Your task to perform on an android device: turn on location history Image 0: 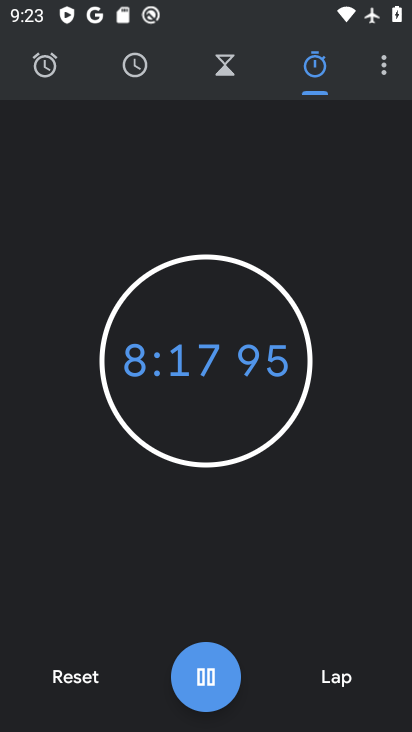
Step 0: press home button
Your task to perform on an android device: turn on location history Image 1: 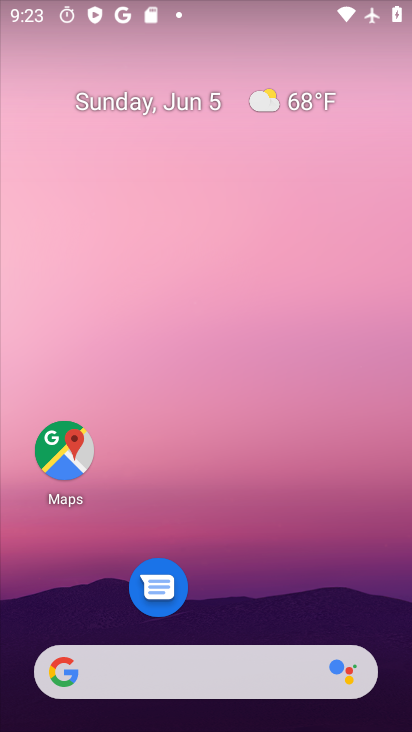
Step 1: drag from (244, 575) to (4, 100)
Your task to perform on an android device: turn on location history Image 2: 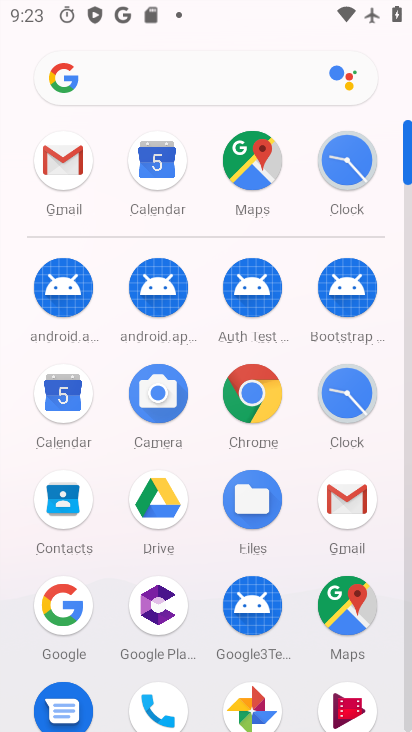
Step 2: drag from (207, 642) to (161, 456)
Your task to perform on an android device: turn on location history Image 3: 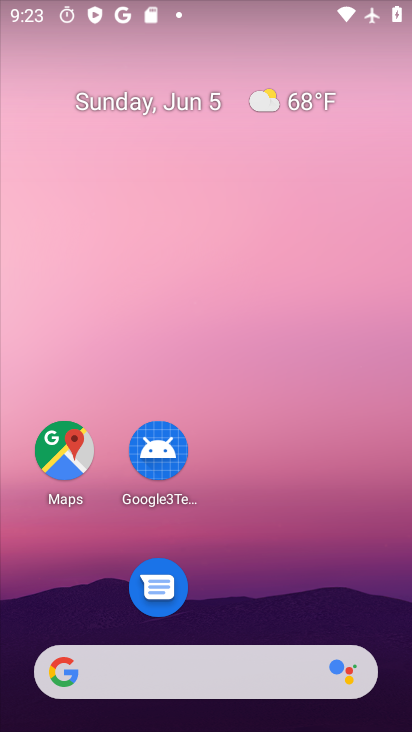
Step 3: drag from (298, 607) to (238, 223)
Your task to perform on an android device: turn on location history Image 4: 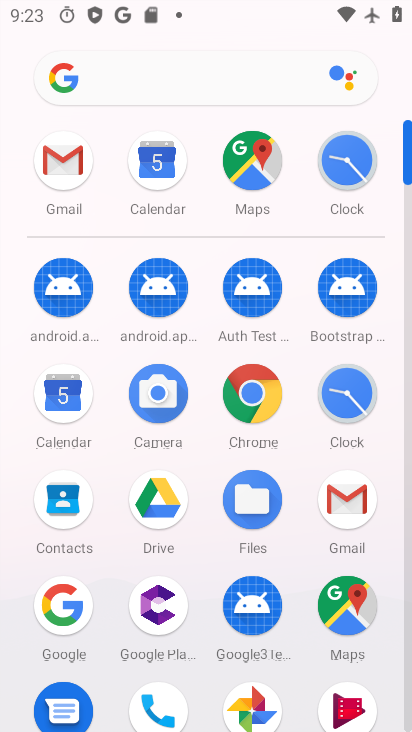
Step 4: drag from (204, 687) to (137, 333)
Your task to perform on an android device: turn on location history Image 5: 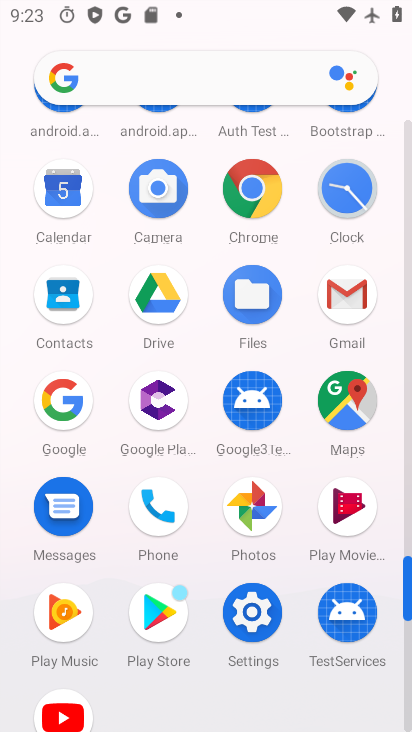
Step 5: click (241, 617)
Your task to perform on an android device: turn on location history Image 6: 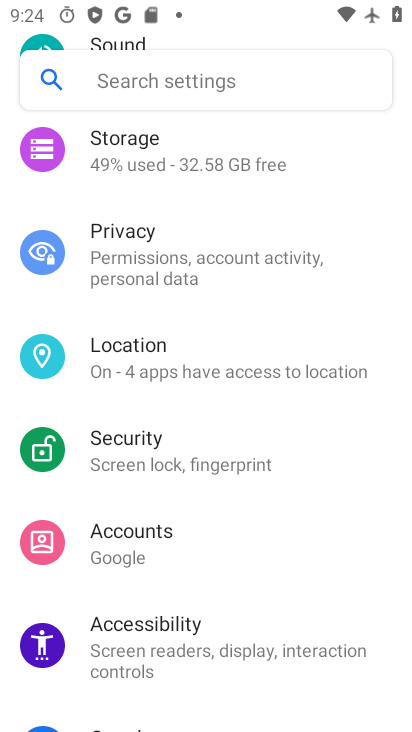
Step 6: click (187, 371)
Your task to perform on an android device: turn on location history Image 7: 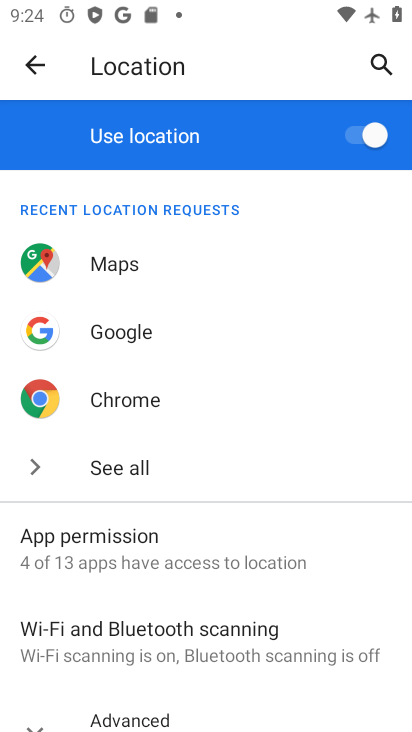
Step 7: click (171, 718)
Your task to perform on an android device: turn on location history Image 8: 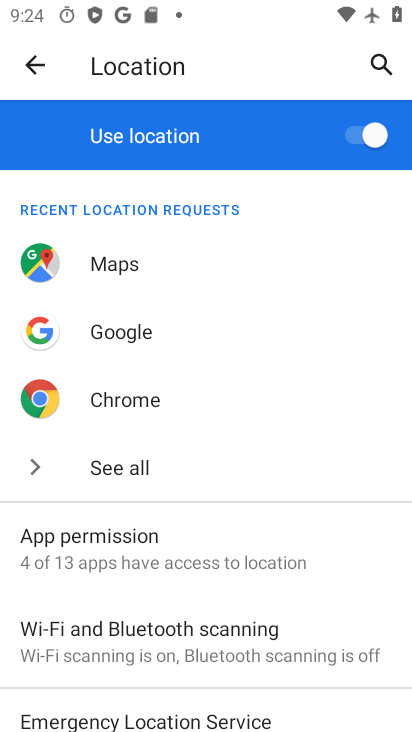
Step 8: drag from (171, 718) to (182, 377)
Your task to perform on an android device: turn on location history Image 9: 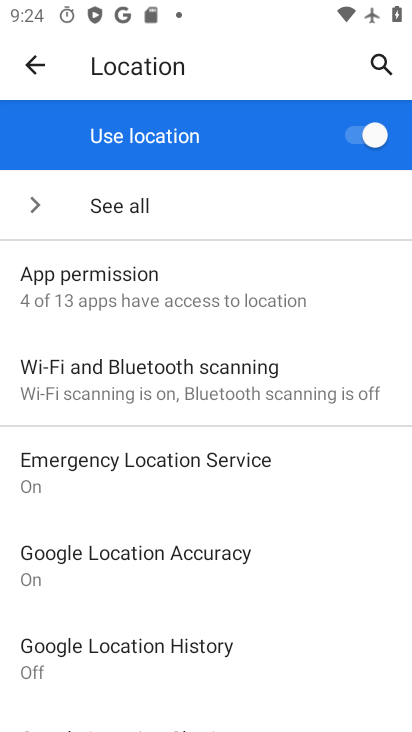
Step 9: click (169, 644)
Your task to perform on an android device: turn on location history Image 10: 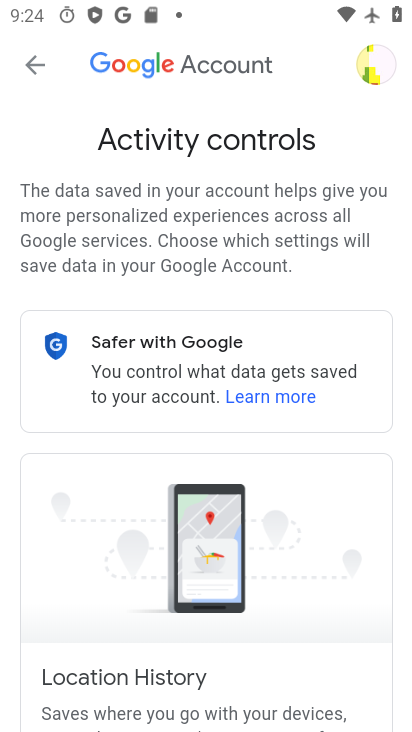
Step 10: task complete